Your task to perform on an android device: install app "Reddit" Image 0: 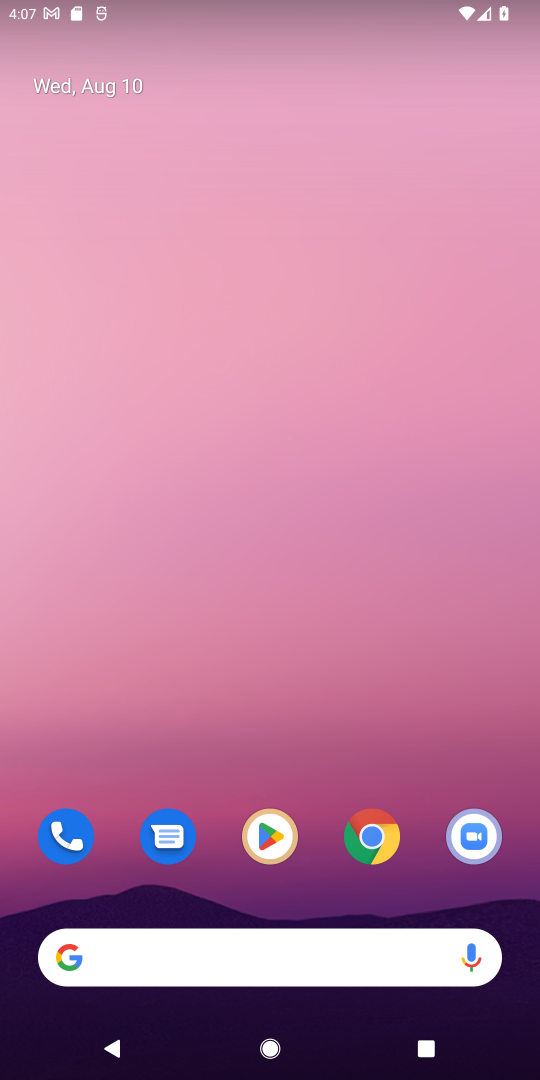
Step 0: drag from (161, 874) to (248, 228)
Your task to perform on an android device: install app "Reddit" Image 1: 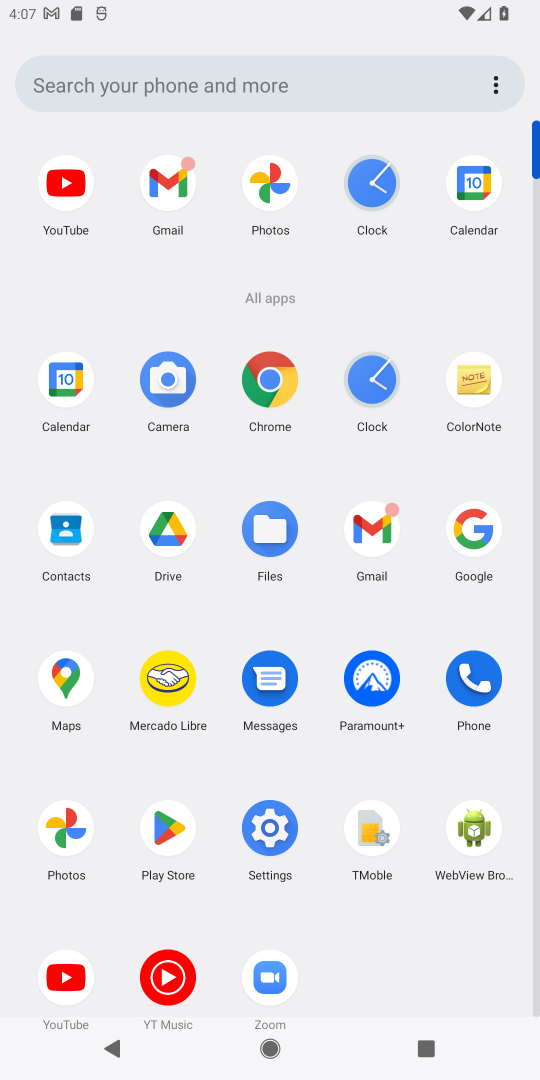
Step 1: click (152, 844)
Your task to perform on an android device: install app "Reddit" Image 2: 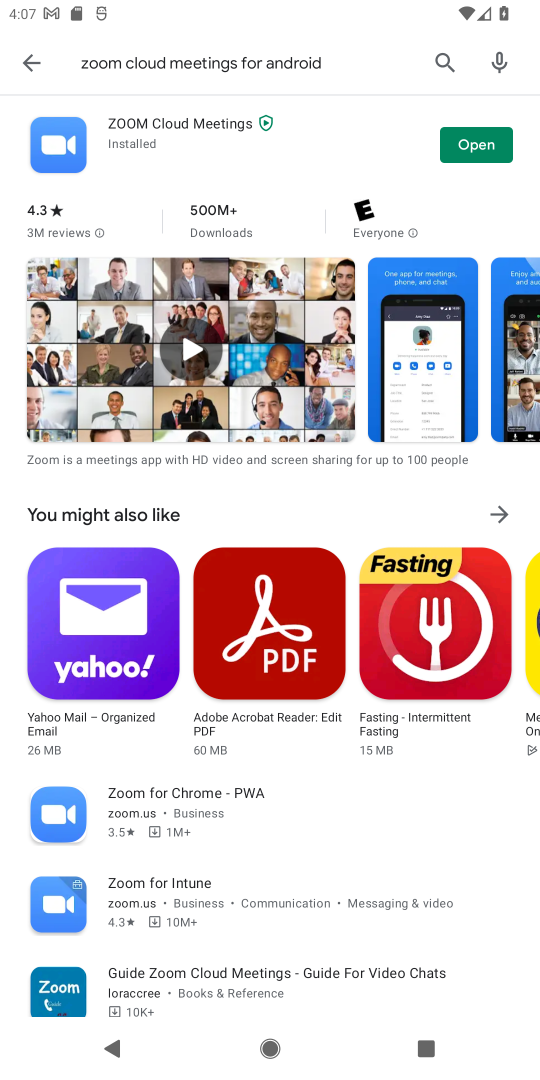
Step 2: click (31, 55)
Your task to perform on an android device: install app "Reddit" Image 3: 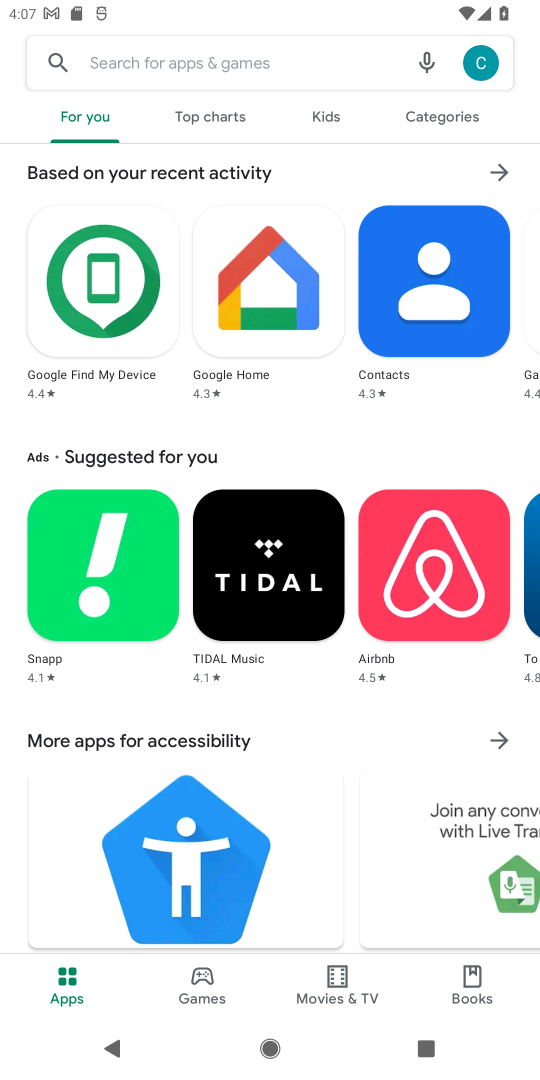
Step 3: click (201, 47)
Your task to perform on an android device: install app "Reddit" Image 4: 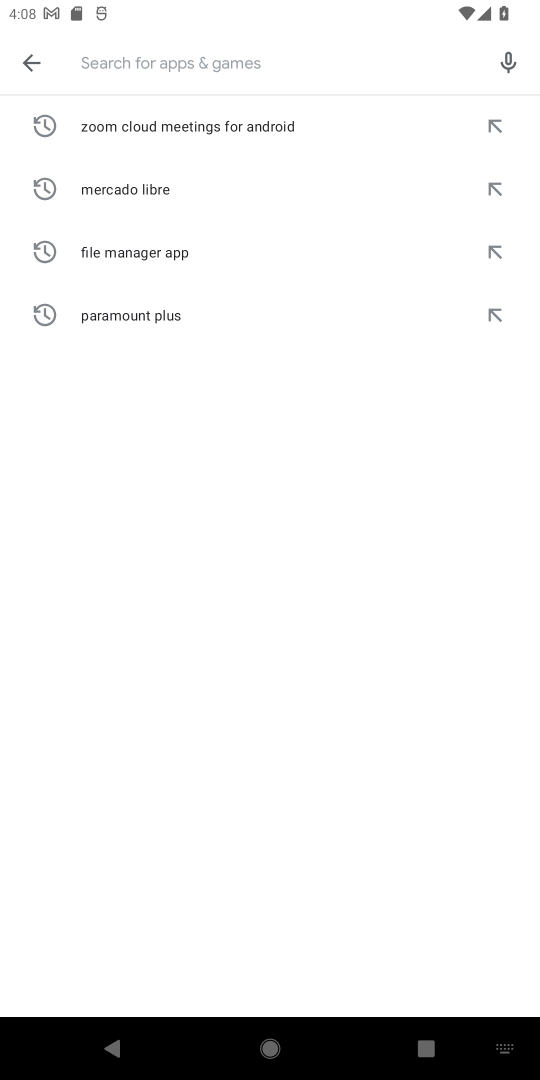
Step 4: type ""Reddit" "
Your task to perform on an android device: install app "Reddit" Image 5: 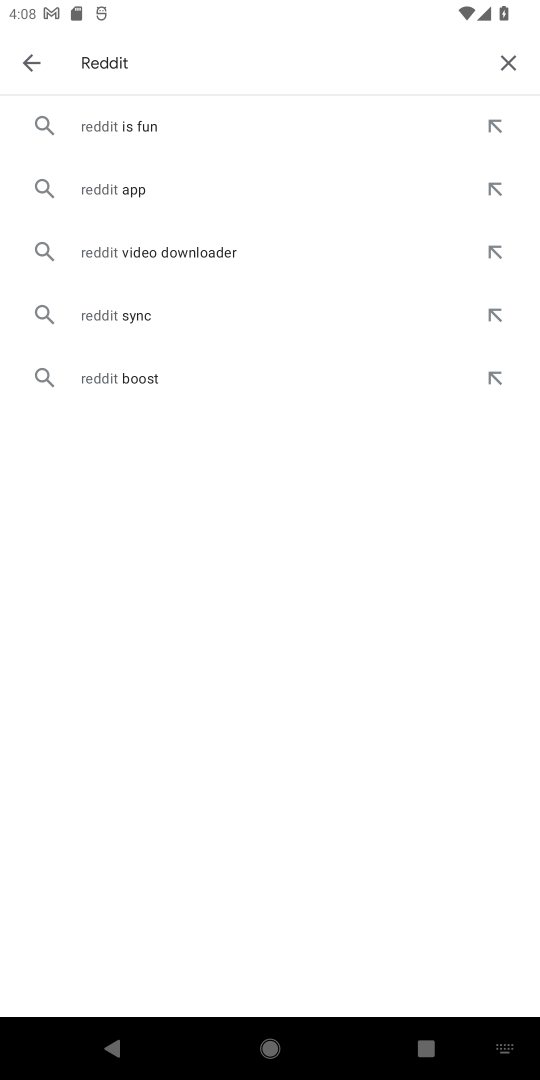
Step 5: click (148, 188)
Your task to perform on an android device: install app "Reddit" Image 6: 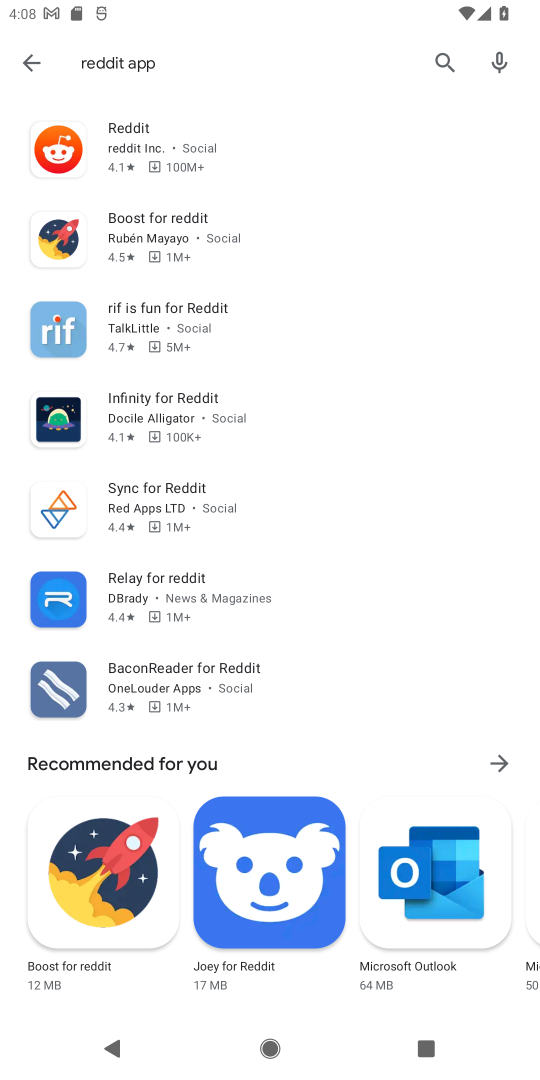
Step 6: click (151, 126)
Your task to perform on an android device: install app "Reddit" Image 7: 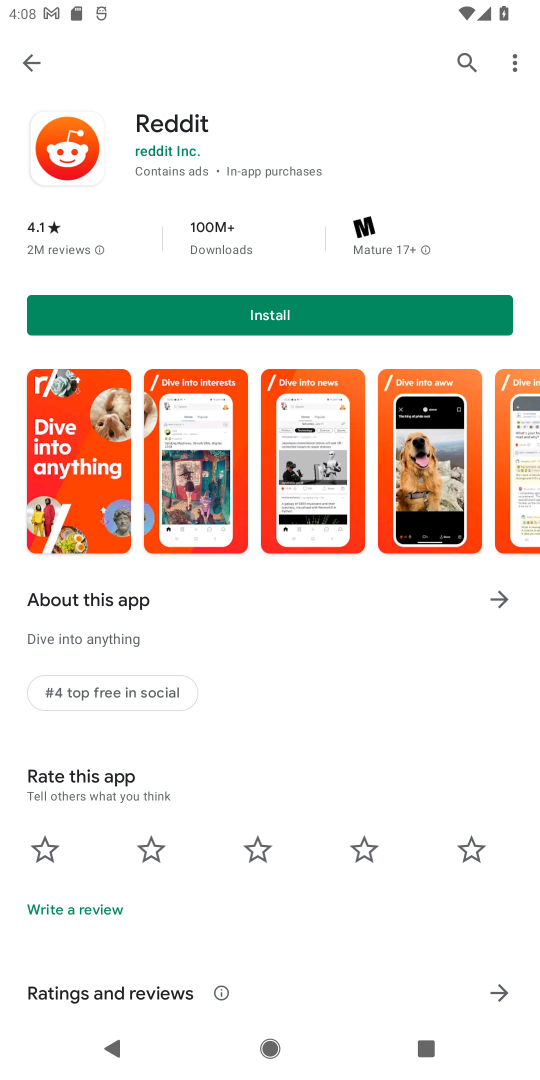
Step 7: click (308, 317)
Your task to perform on an android device: install app "Reddit" Image 8: 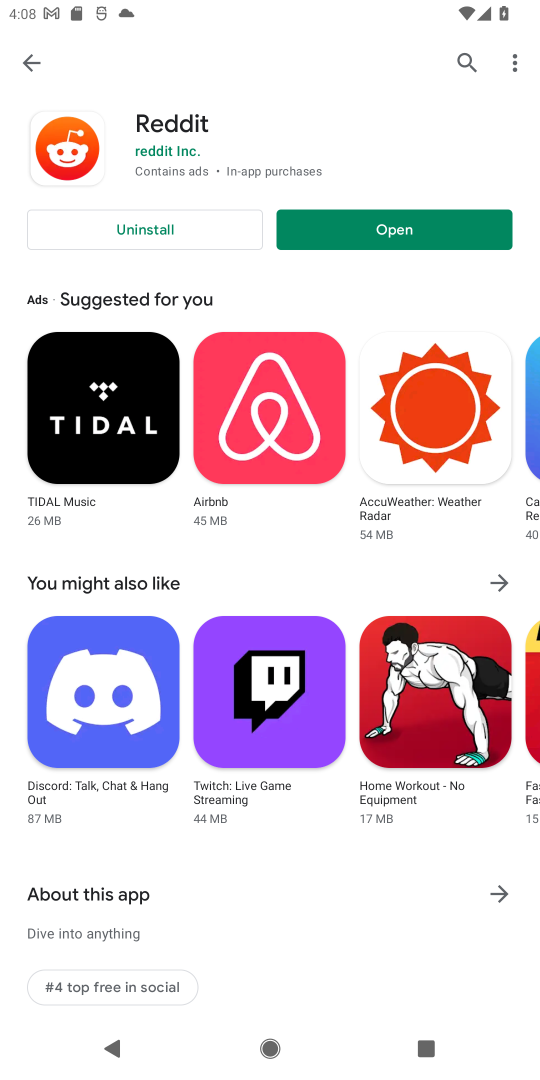
Step 8: click (430, 218)
Your task to perform on an android device: install app "Reddit" Image 9: 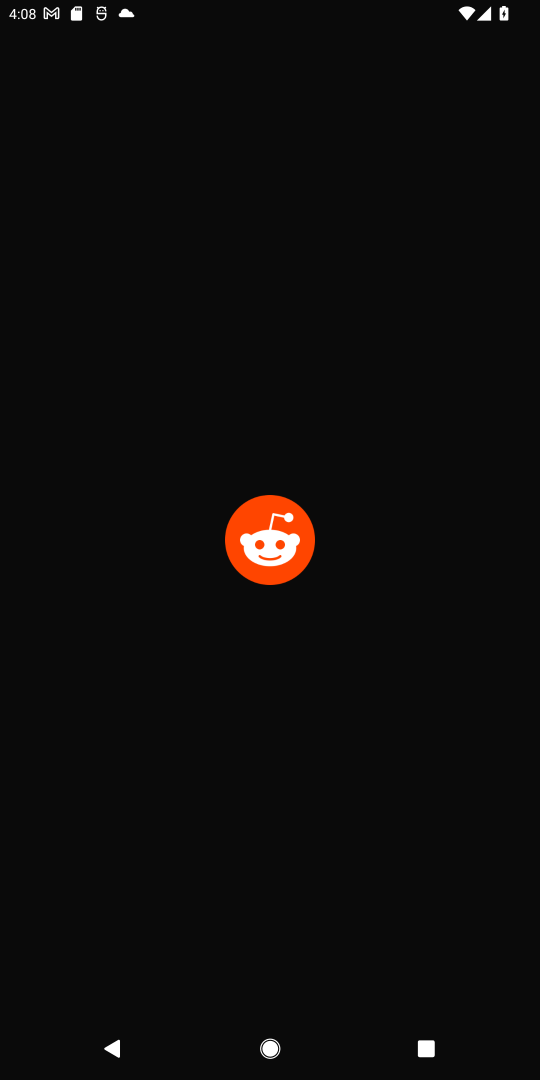
Step 9: task complete